Your task to perform on an android device: Go to CNN.com Image 0: 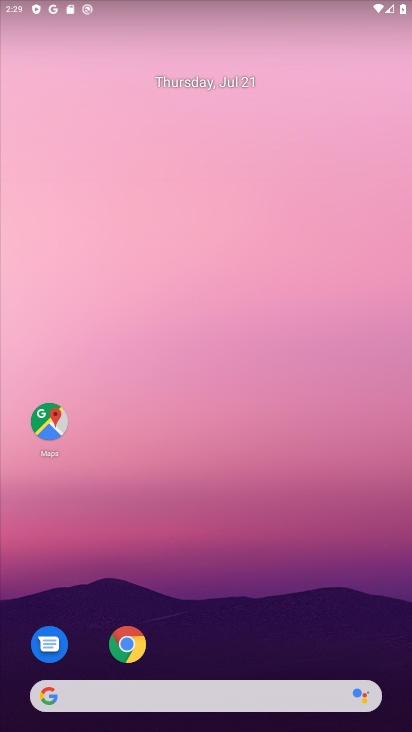
Step 0: click (122, 632)
Your task to perform on an android device: Go to CNN.com Image 1: 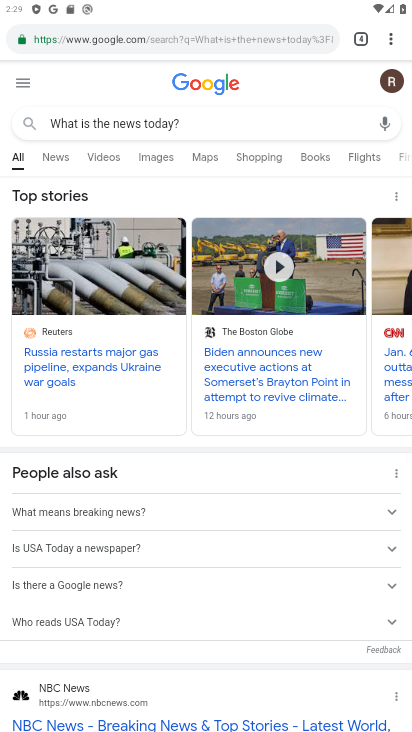
Step 1: click (200, 40)
Your task to perform on an android device: Go to CNN.com Image 2: 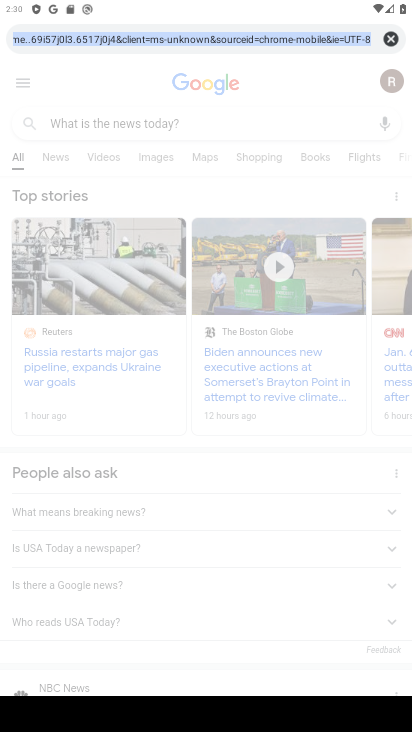
Step 2: type "cnn.com"
Your task to perform on an android device: Go to CNN.com Image 3: 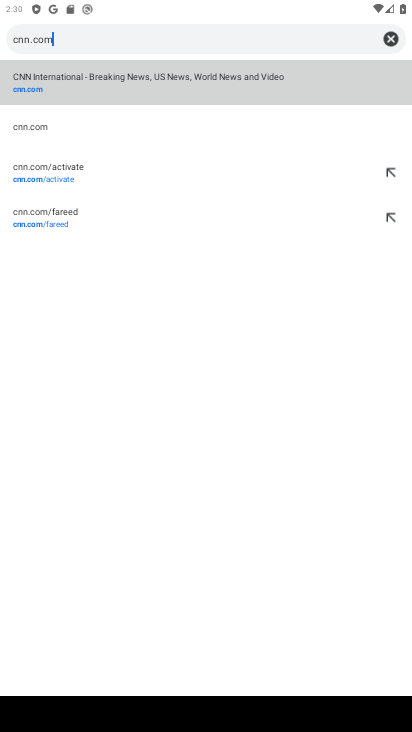
Step 3: click (143, 93)
Your task to perform on an android device: Go to CNN.com Image 4: 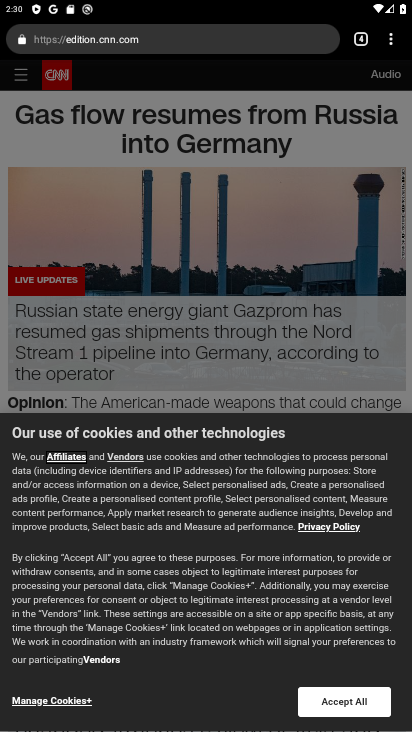
Step 4: task complete